Your task to perform on an android device: Do I have any events today? Image 0: 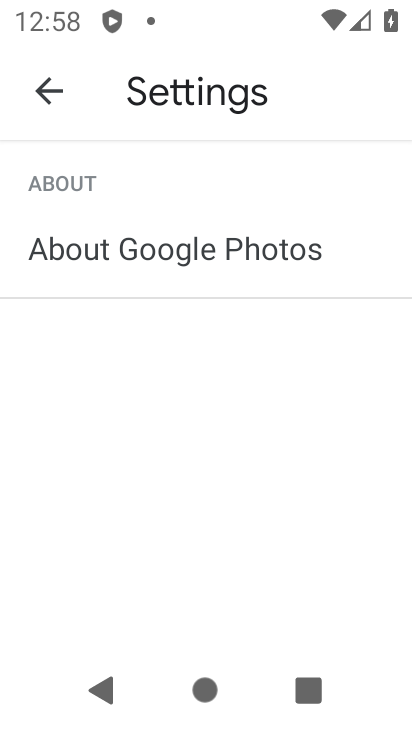
Step 0: press home button
Your task to perform on an android device: Do I have any events today? Image 1: 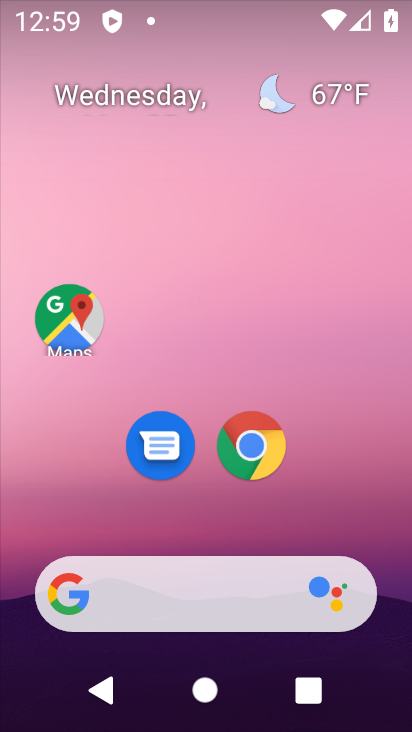
Step 1: drag from (402, 553) to (325, 235)
Your task to perform on an android device: Do I have any events today? Image 2: 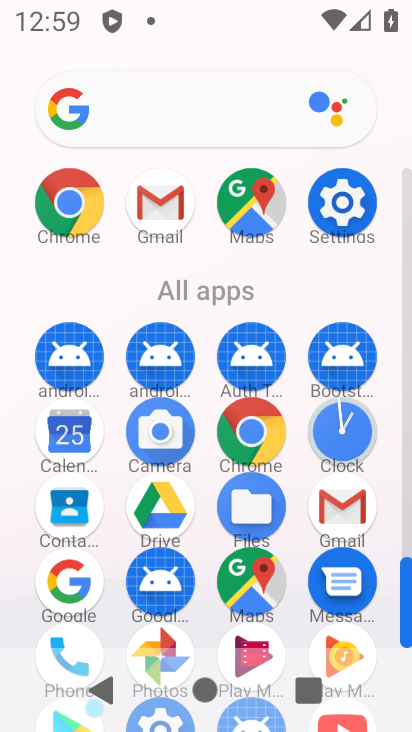
Step 2: click (67, 429)
Your task to perform on an android device: Do I have any events today? Image 3: 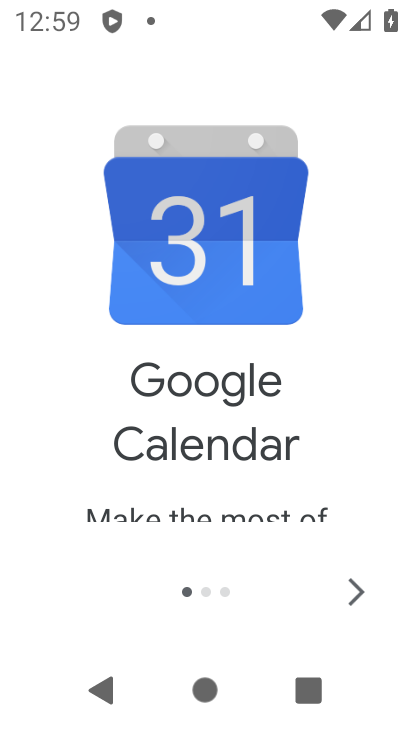
Step 3: click (357, 585)
Your task to perform on an android device: Do I have any events today? Image 4: 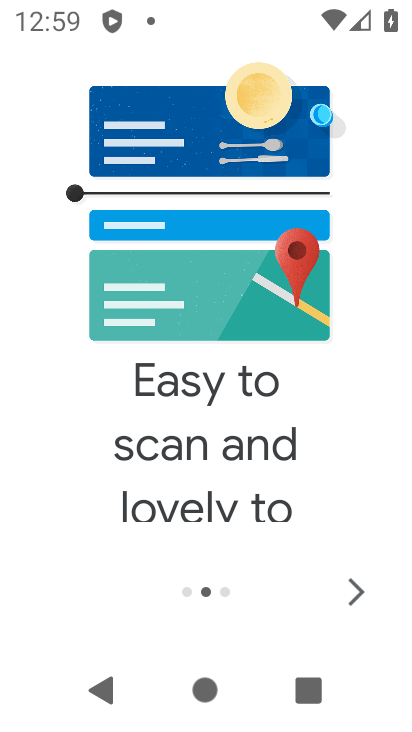
Step 4: click (357, 585)
Your task to perform on an android device: Do I have any events today? Image 5: 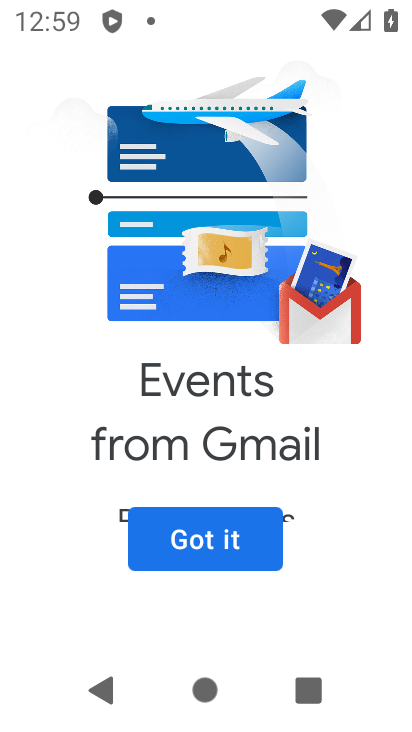
Step 5: click (231, 537)
Your task to perform on an android device: Do I have any events today? Image 6: 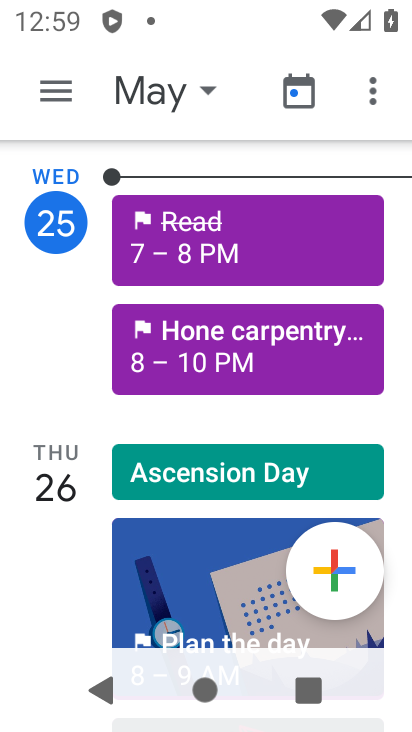
Step 6: click (63, 89)
Your task to perform on an android device: Do I have any events today? Image 7: 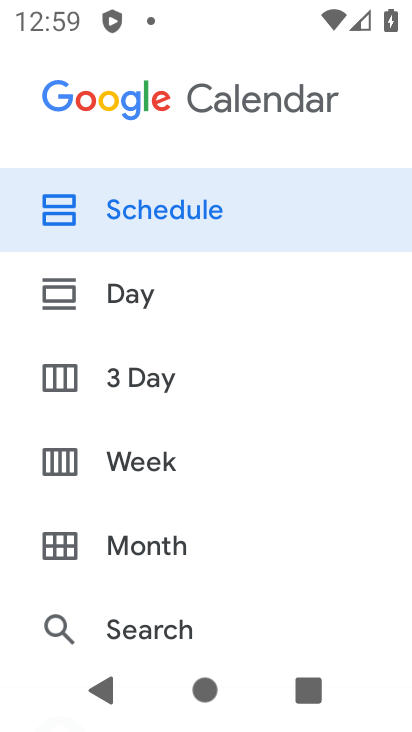
Step 7: drag from (179, 588) to (158, 255)
Your task to perform on an android device: Do I have any events today? Image 8: 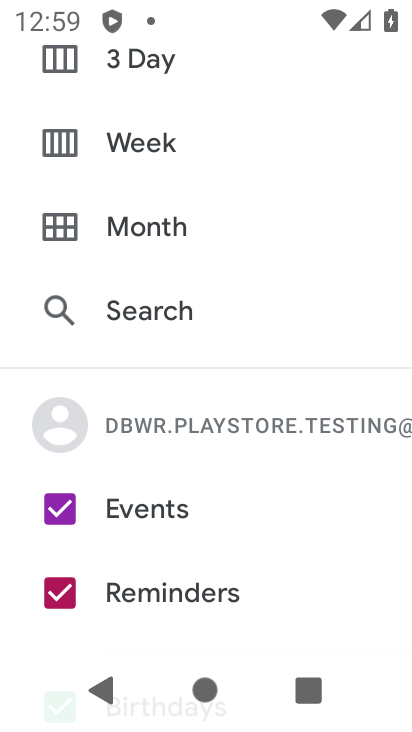
Step 8: drag from (196, 605) to (166, 339)
Your task to perform on an android device: Do I have any events today? Image 9: 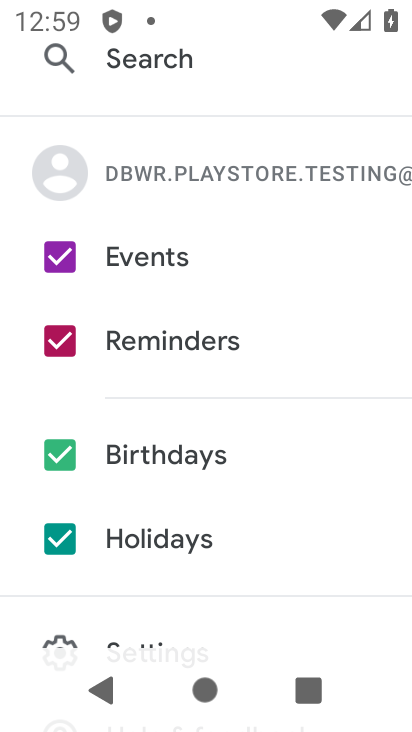
Step 9: click (56, 533)
Your task to perform on an android device: Do I have any events today? Image 10: 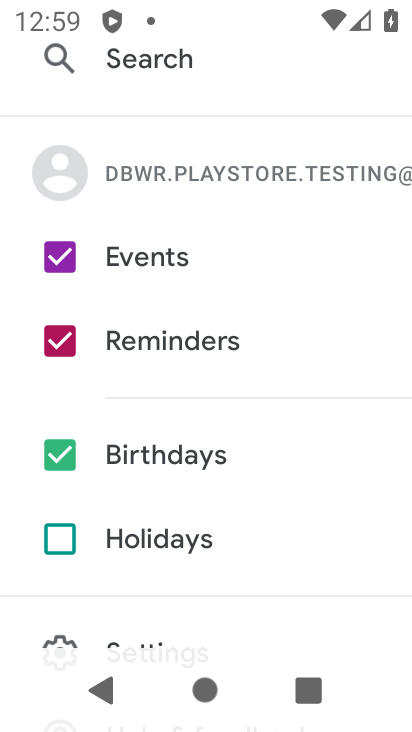
Step 10: click (54, 463)
Your task to perform on an android device: Do I have any events today? Image 11: 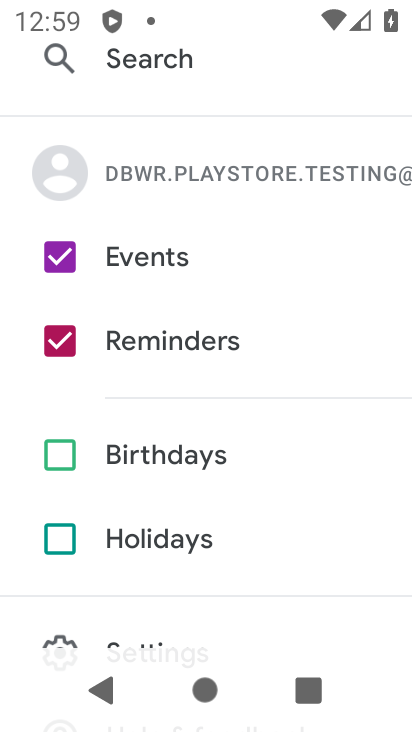
Step 11: click (59, 348)
Your task to perform on an android device: Do I have any events today? Image 12: 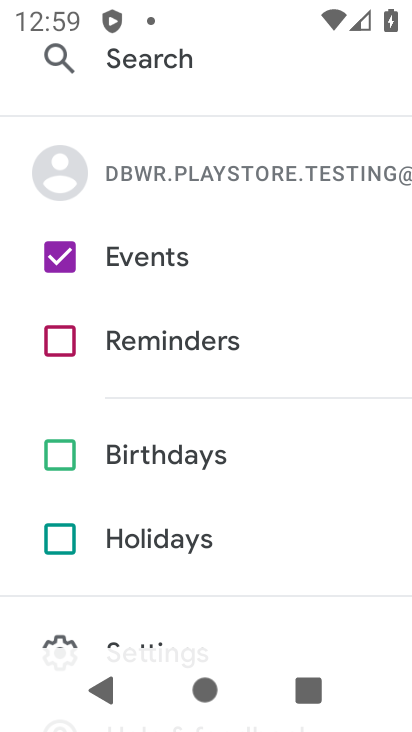
Step 12: drag from (161, 202) to (186, 430)
Your task to perform on an android device: Do I have any events today? Image 13: 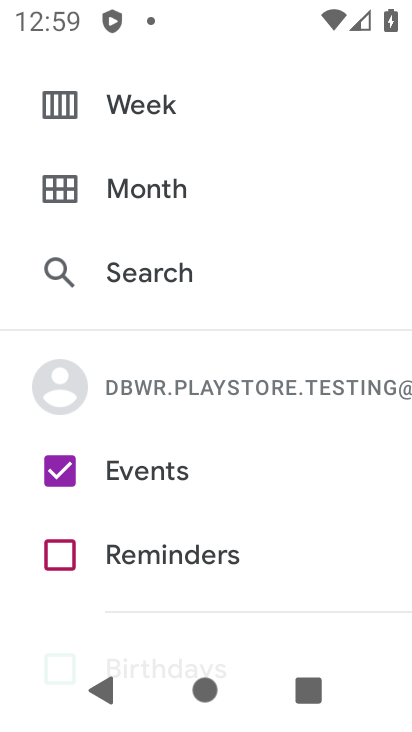
Step 13: drag from (187, 138) to (204, 430)
Your task to perform on an android device: Do I have any events today? Image 14: 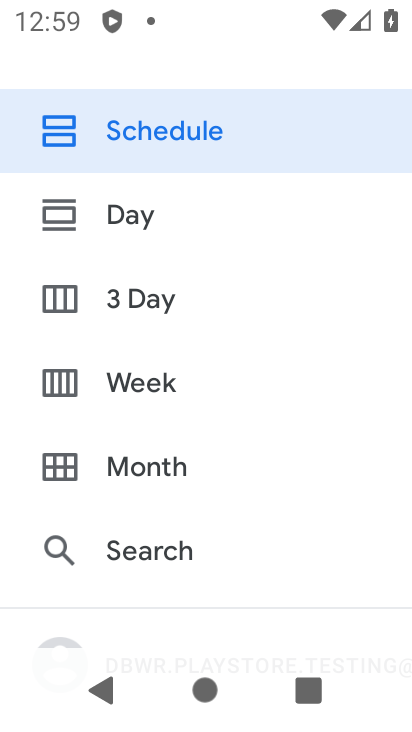
Step 14: click (139, 136)
Your task to perform on an android device: Do I have any events today? Image 15: 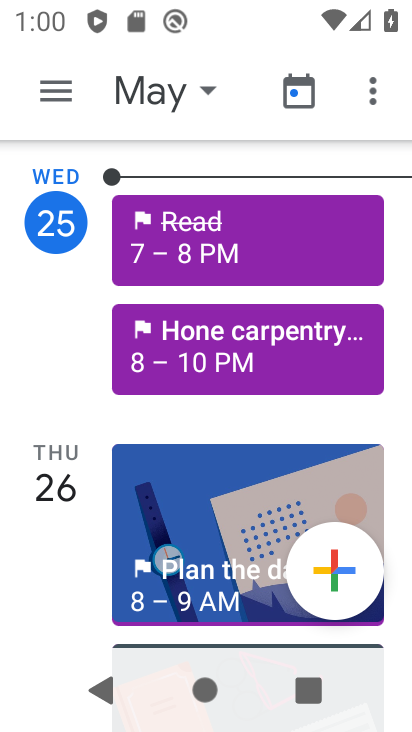
Step 15: task complete